Your task to perform on an android device: Open battery settings Image 0: 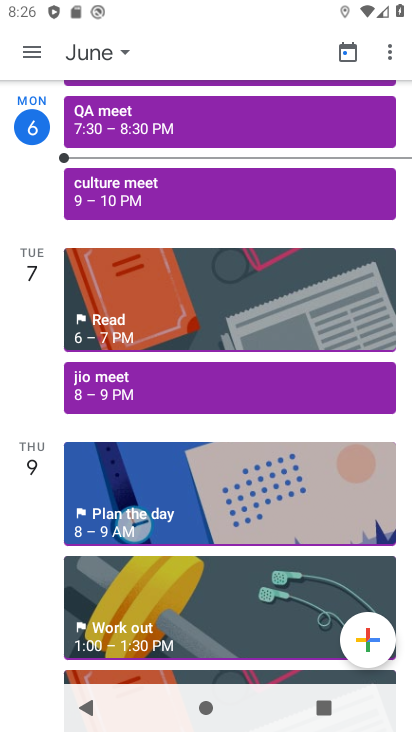
Step 0: drag from (209, 5) to (187, 562)
Your task to perform on an android device: Open battery settings Image 1: 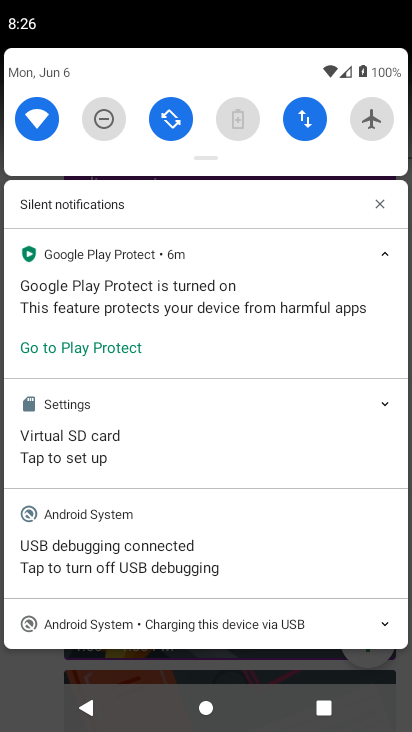
Step 1: click (242, 114)
Your task to perform on an android device: Open battery settings Image 2: 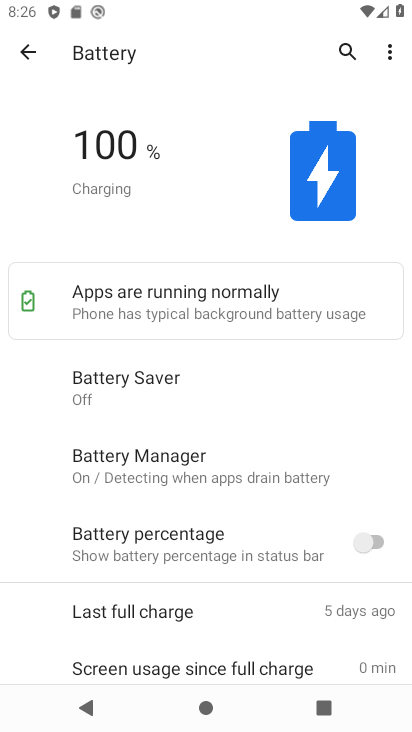
Step 2: task complete